Your task to perform on an android device: Go to Reddit.com Image 0: 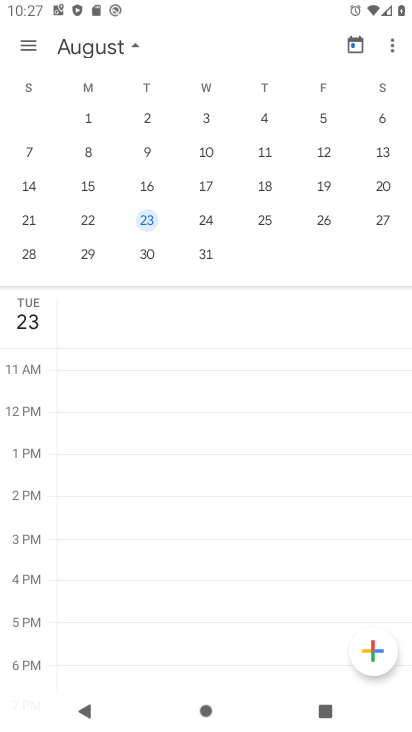
Step 0: press home button
Your task to perform on an android device: Go to Reddit.com Image 1: 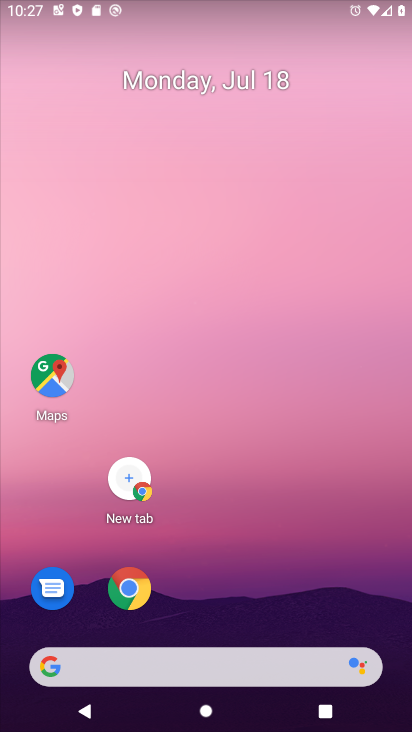
Step 1: click (229, 676)
Your task to perform on an android device: Go to Reddit.com Image 2: 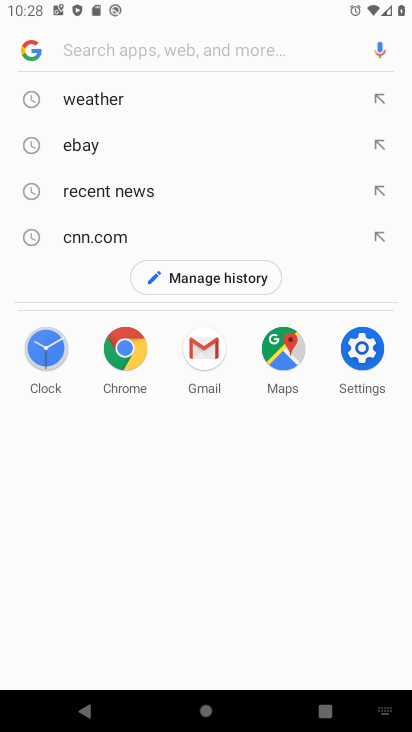
Step 2: type "reddit"
Your task to perform on an android device: Go to Reddit.com Image 3: 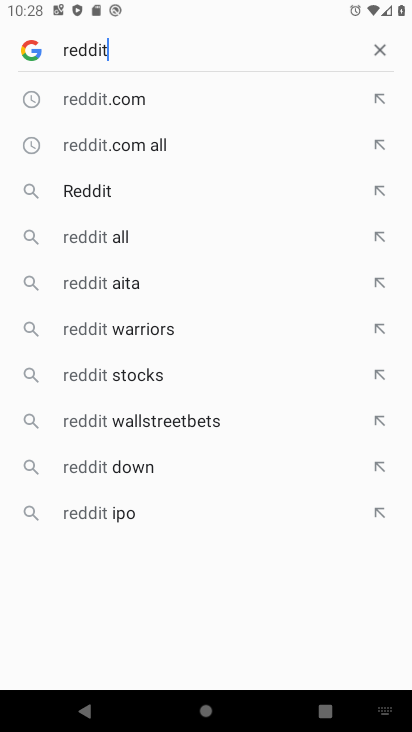
Step 3: click (135, 115)
Your task to perform on an android device: Go to Reddit.com Image 4: 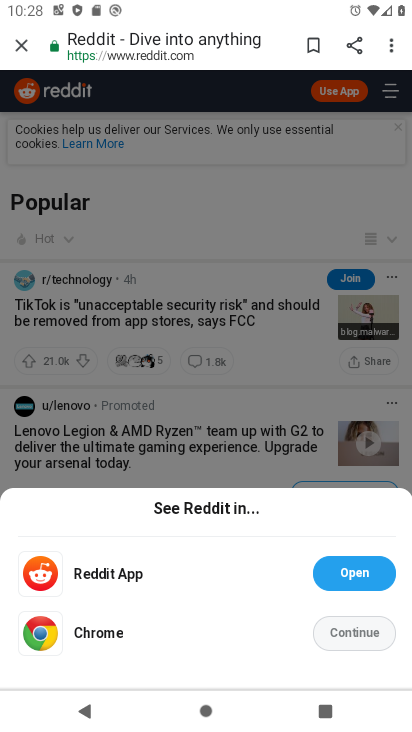
Step 4: task complete